Your task to perform on an android device: toggle sleep mode Image 0: 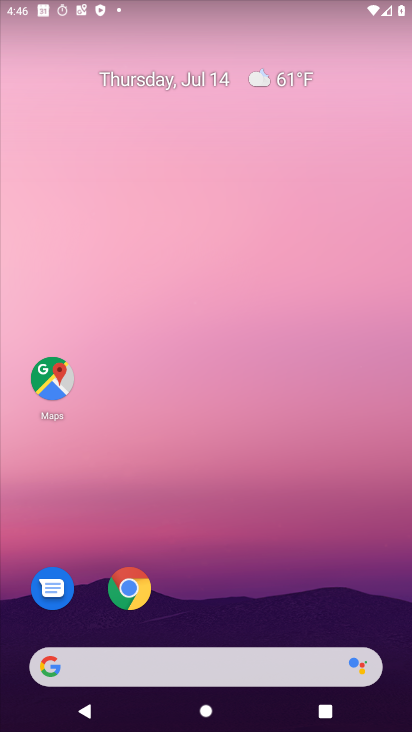
Step 0: drag from (181, 673) to (220, 300)
Your task to perform on an android device: toggle sleep mode Image 1: 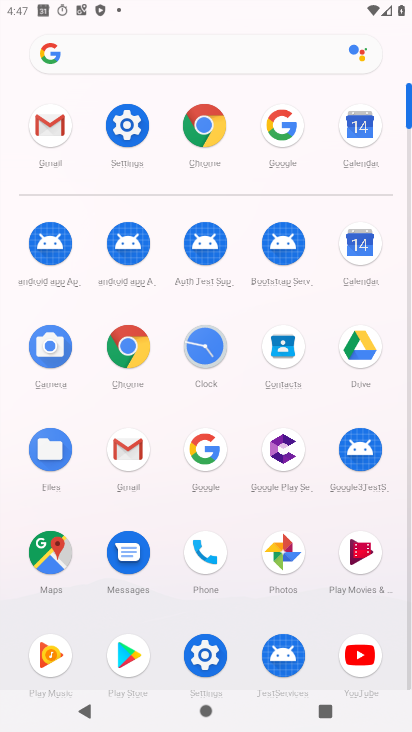
Step 1: click (128, 125)
Your task to perform on an android device: toggle sleep mode Image 2: 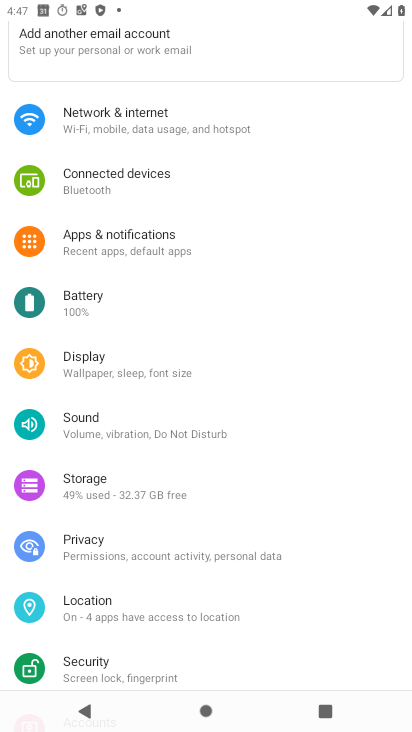
Step 2: click (122, 374)
Your task to perform on an android device: toggle sleep mode Image 3: 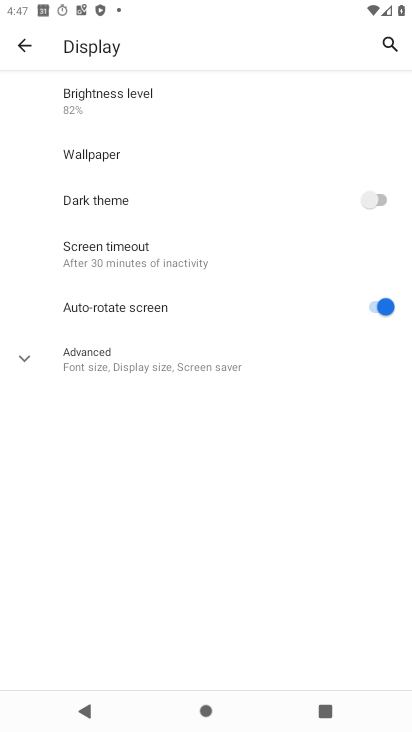
Step 3: click (153, 267)
Your task to perform on an android device: toggle sleep mode Image 4: 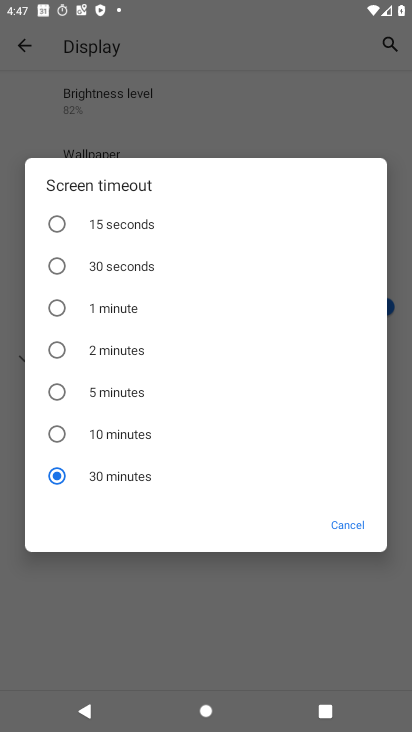
Step 4: click (350, 528)
Your task to perform on an android device: toggle sleep mode Image 5: 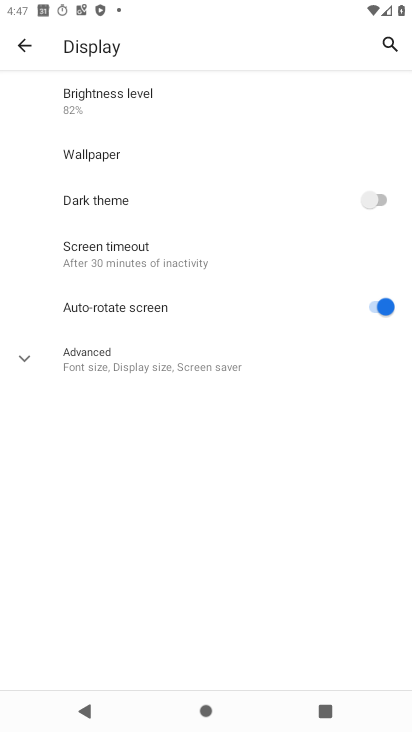
Step 5: click (26, 358)
Your task to perform on an android device: toggle sleep mode Image 6: 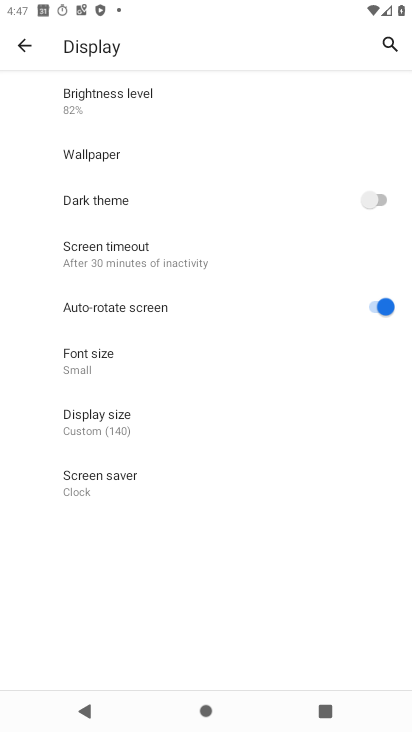
Step 6: task complete